Your task to perform on an android device: Clear the shopping cart on costco.com. Add razer thresher to the cart on costco.com, then select checkout. Image 0: 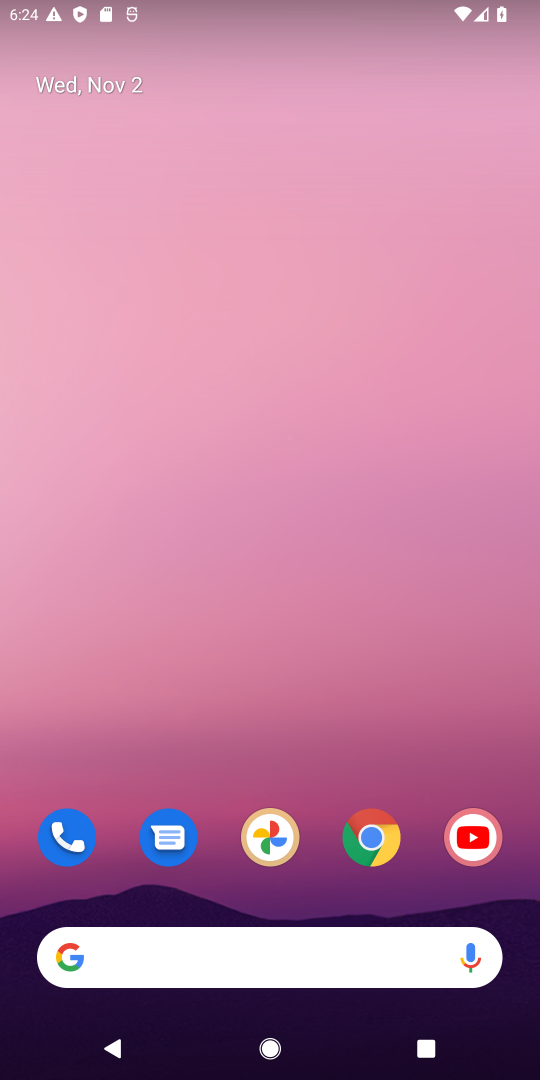
Step 0: click (376, 835)
Your task to perform on an android device: Clear the shopping cart on costco.com. Add razer thresher to the cart on costco.com, then select checkout. Image 1: 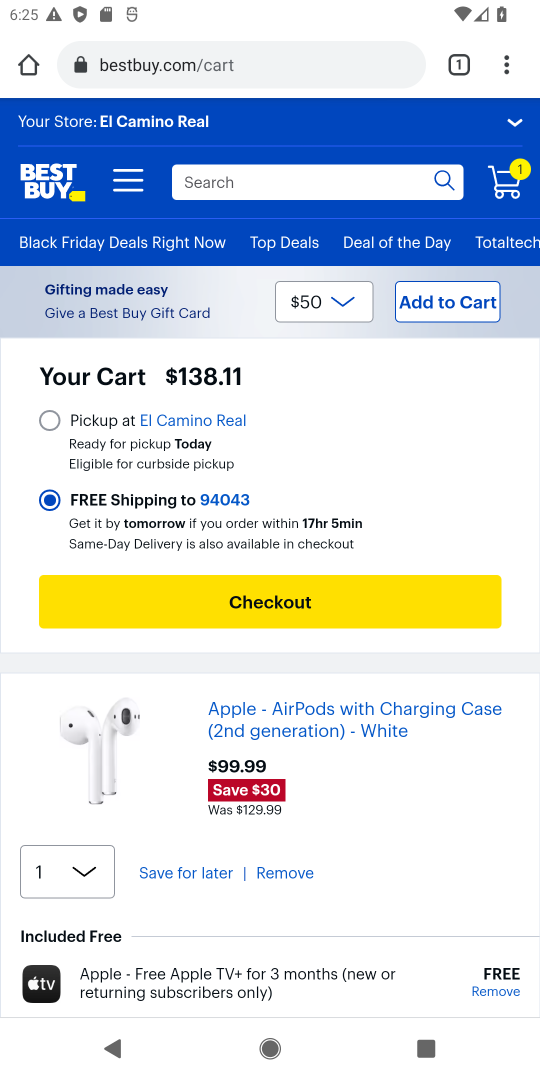
Step 1: click (289, 188)
Your task to perform on an android device: Clear the shopping cart on costco.com. Add razer thresher to the cart on costco.com, then select checkout. Image 2: 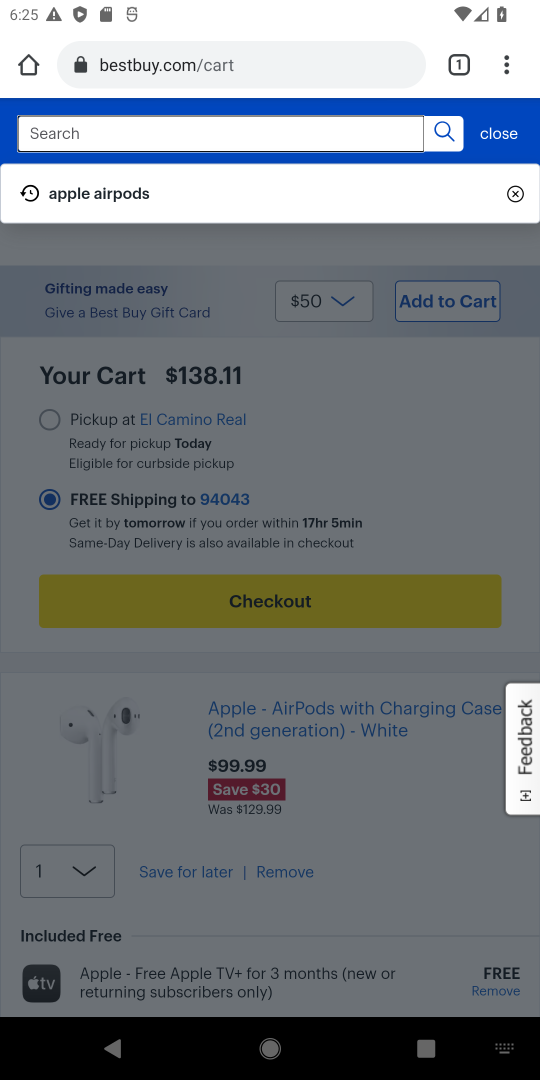
Step 2: click (209, 193)
Your task to perform on an android device: Clear the shopping cart on costco.com. Add razer thresher to the cart on costco.com, then select checkout. Image 3: 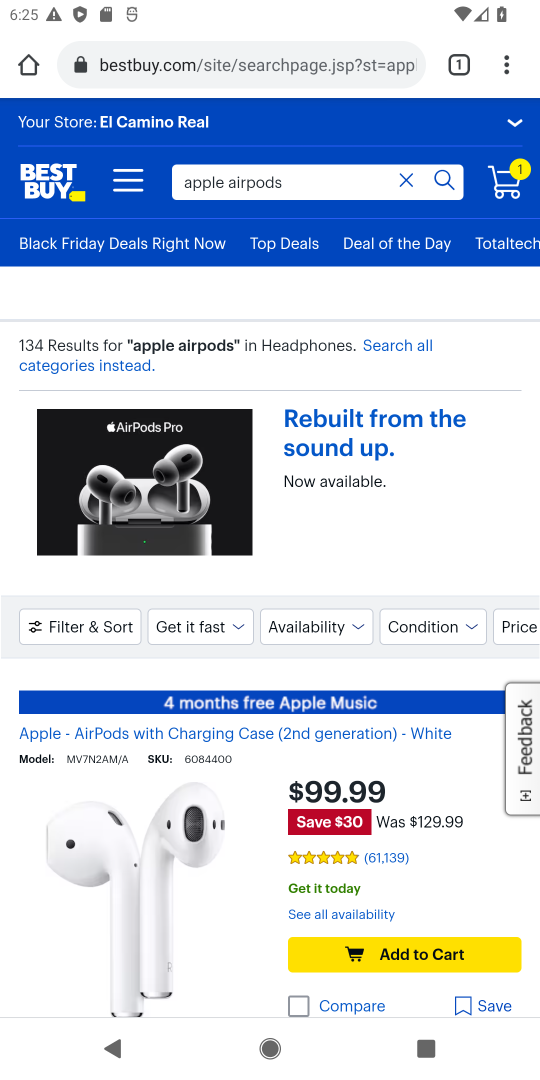
Step 3: click (505, 183)
Your task to perform on an android device: Clear the shopping cart on costco.com. Add razer thresher to the cart on costco.com, then select checkout. Image 4: 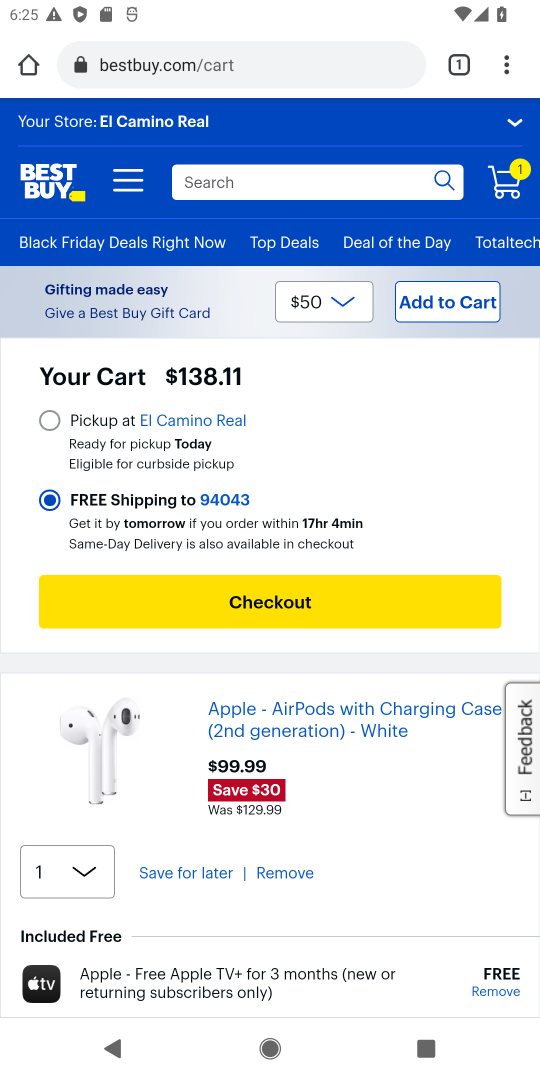
Step 4: drag from (192, 590) to (124, 611)
Your task to perform on an android device: Clear the shopping cart on costco.com. Add razer thresher to the cart on costco.com, then select checkout. Image 5: 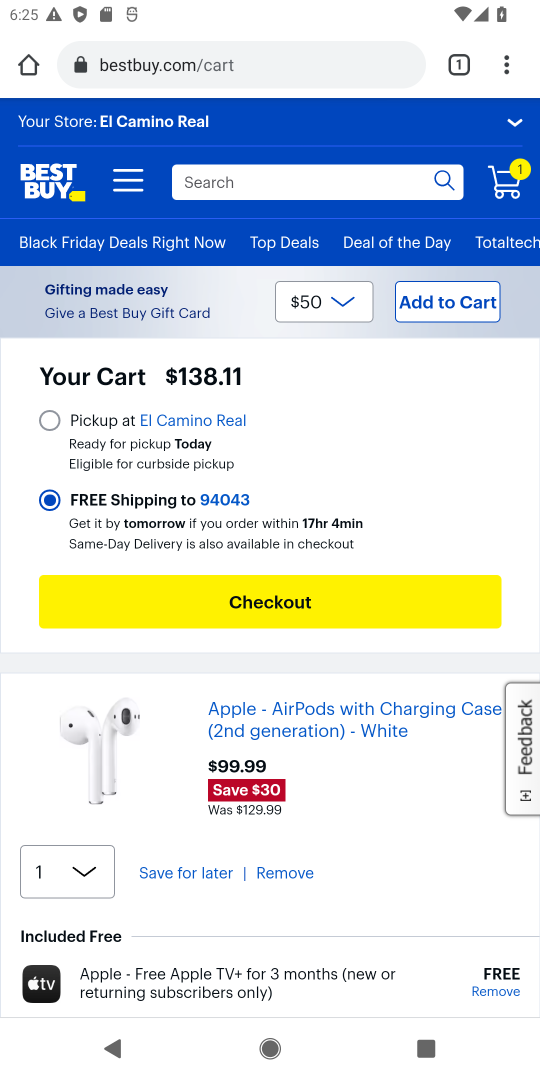
Step 5: click (217, 612)
Your task to perform on an android device: Clear the shopping cart on costco.com. Add razer thresher to the cart on costco.com, then select checkout. Image 6: 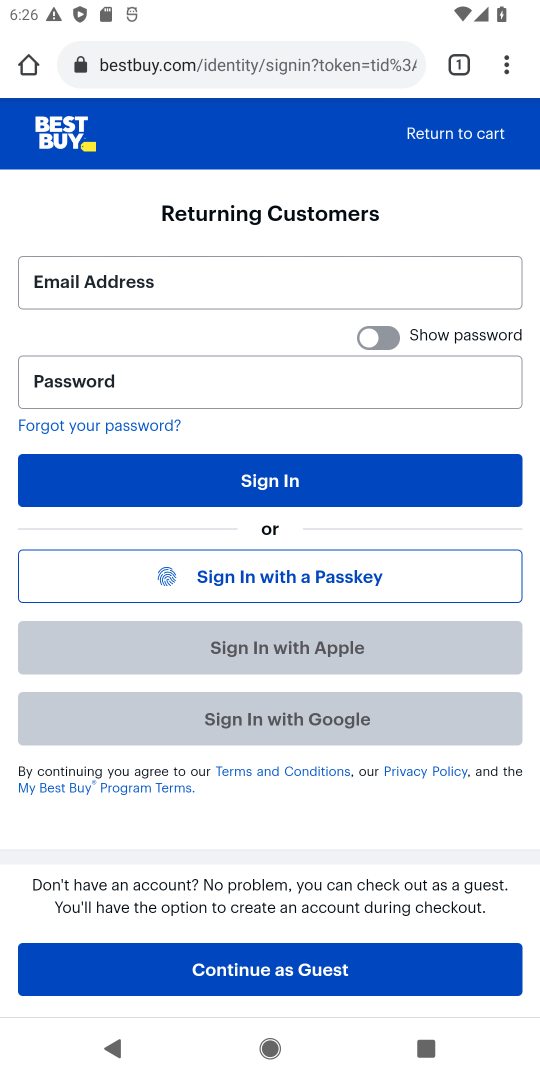
Step 6: task complete